Your task to perform on an android device: toggle notification dots Image 0: 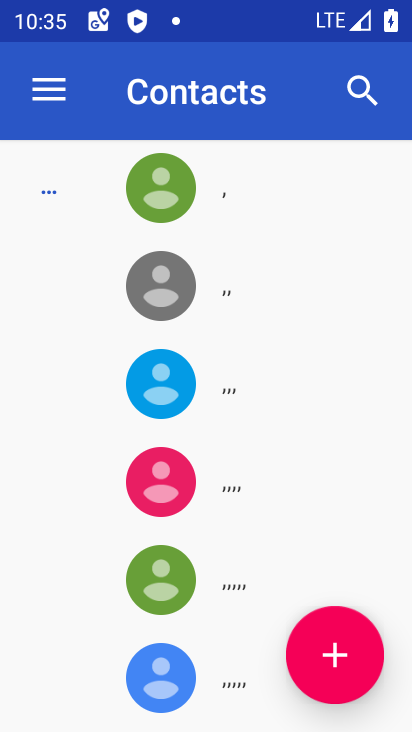
Step 0: press home button
Your task to perform on an android device: toggle notification dots Image 1: 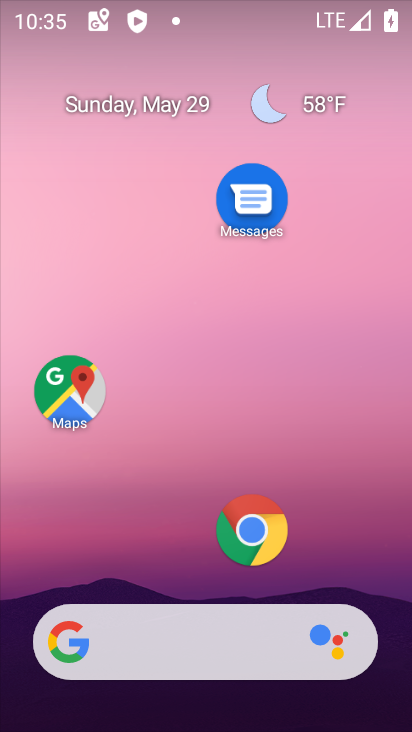
Step 1: drag from (162, 572) to (273, 0)
Your task to perform on an android device: toggle notification dots Image 2: 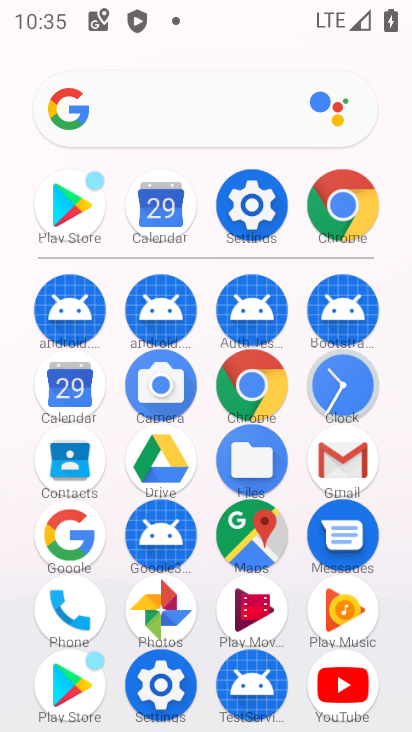
Step 2: click (263, 217)
Your task to perform on an android device: toggle notification dots Image 3: 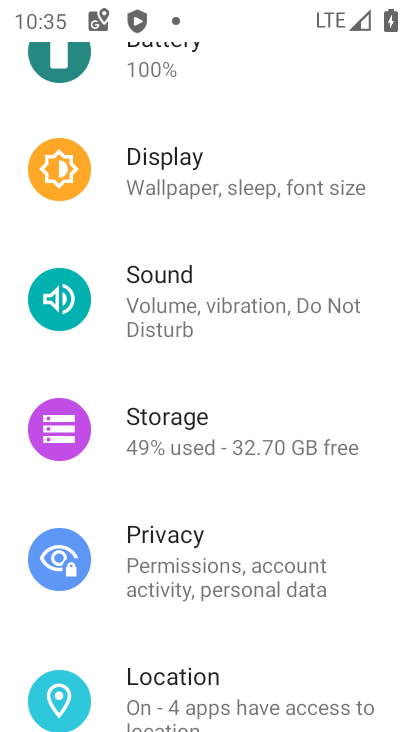
Step 3: drag from (261, 237) to (201, 694)
Your task to perform on an android device: toggle notification dots Image 4: 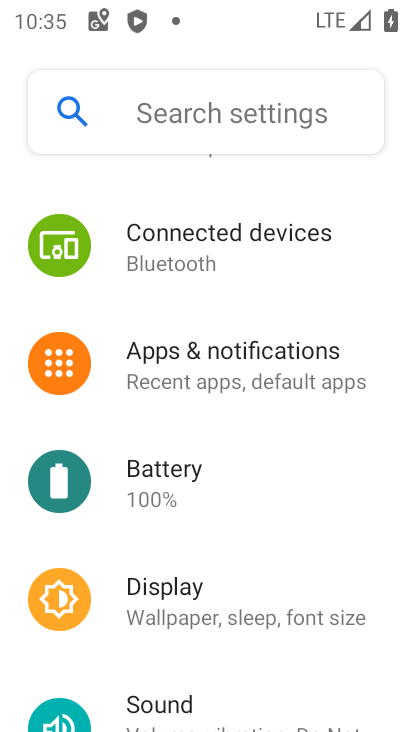
Step 4: click (246, 372)
Your task to perform on an android device: toggle notification dots Image 5: 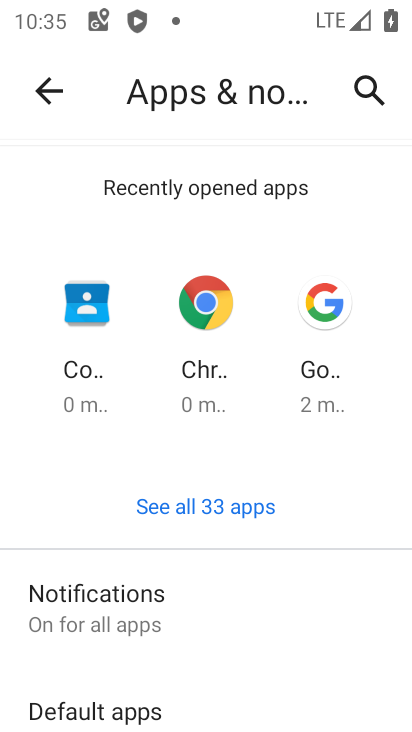
Step 5: click (155, 620)
Your task to perform on an android device: toggle notification dots Image 6: 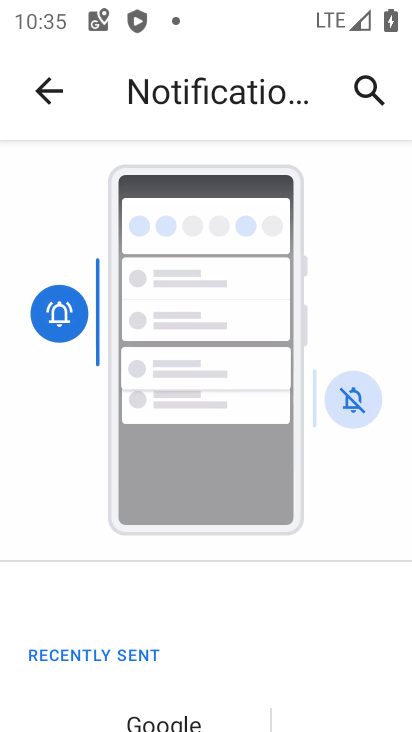
Step 6: drag from (168, 685) to (224, 315)
Your task to perform on an android device: toggle notification dots Image 7: 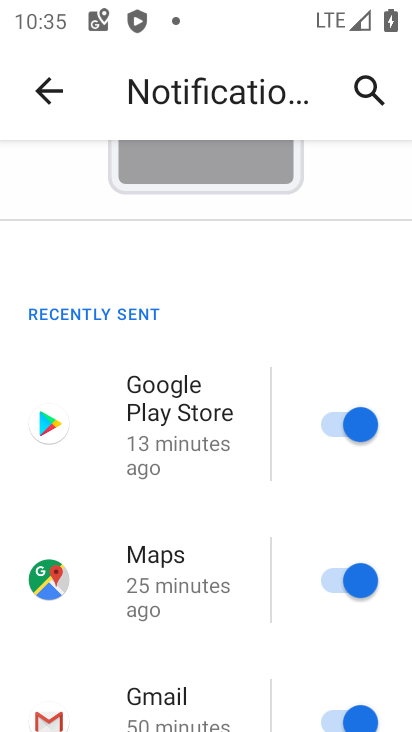
Step 7: drag from (212, 579) to (243, 190)
Your task to perform on an android device: toggle notification dots Image 8: 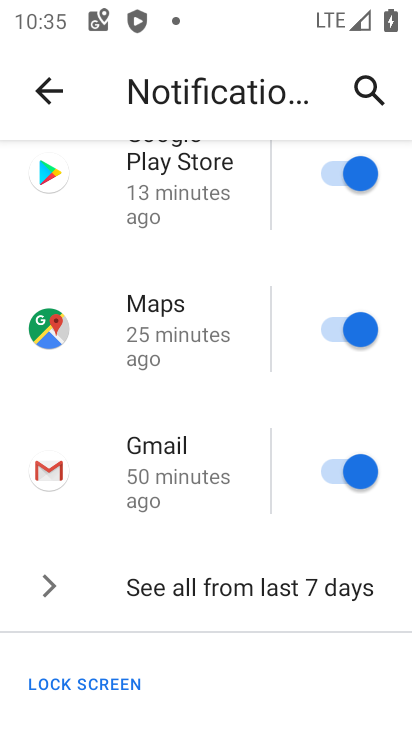
Step 8: drag from (194, 606) to (226, 82)
Your task to perform on an android device: toggle notification dots Image 9: 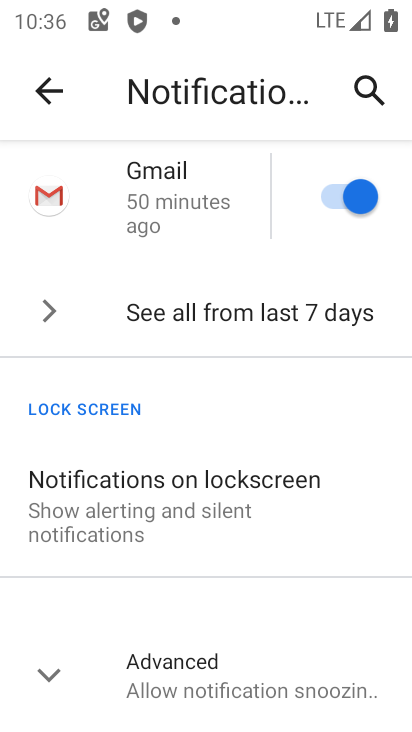
Step 9: click (149, 662)
Your task to perform on an android device: toggle notification dots Image 10: 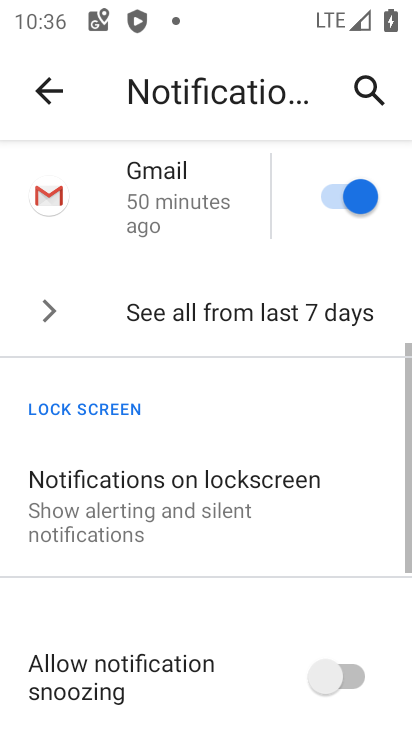
Step 10: drag from (149, 662) to (207, 147)
Your task to perform on an android device: toggle notification dots Image 11: 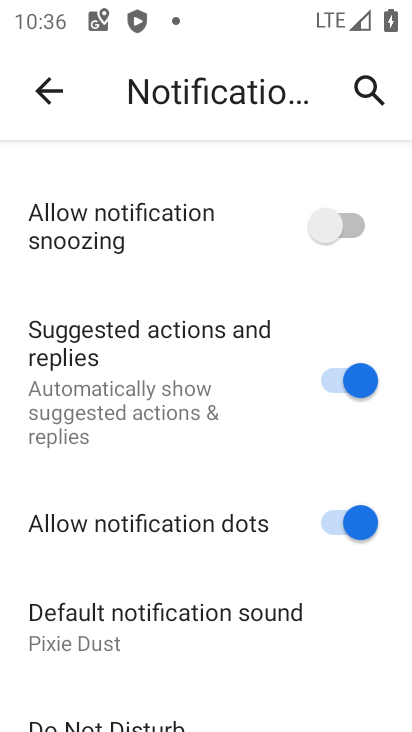
Step 11: click (336, 499)
Your task to perform on an android device: toggle notification dots Image 12: 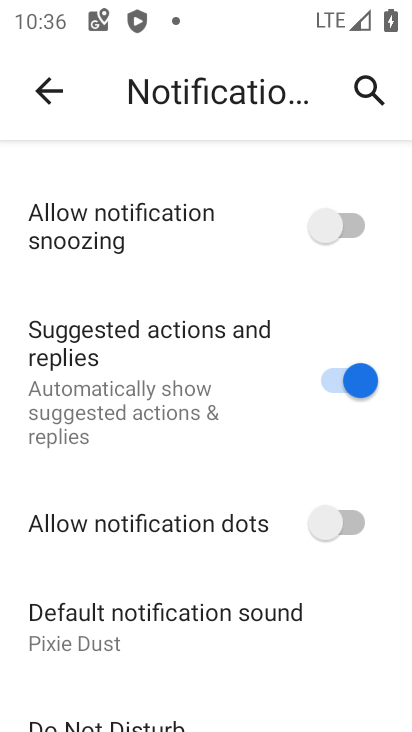
Step 12: task complete